Your task to perform on an android device: install app "Firefox Browser" Image 0: 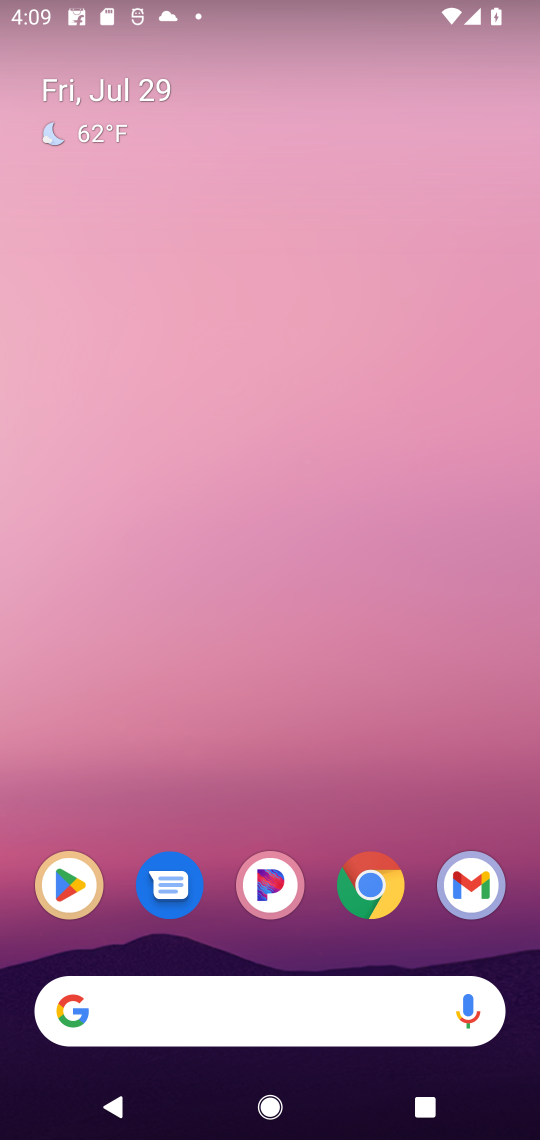
Step 0: click (85, 882)
Your task to perform on an android device: install app "Firefox Browser" Image 1: 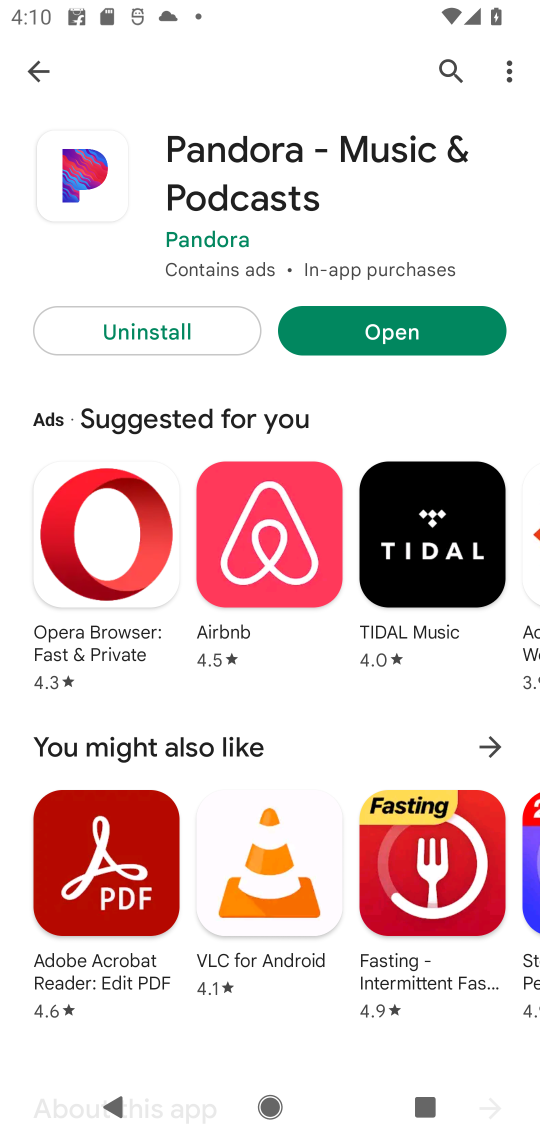
Step 1: click (449, 61)
Your task to perform on an android device: install app "Firefox Browser" Image 2: 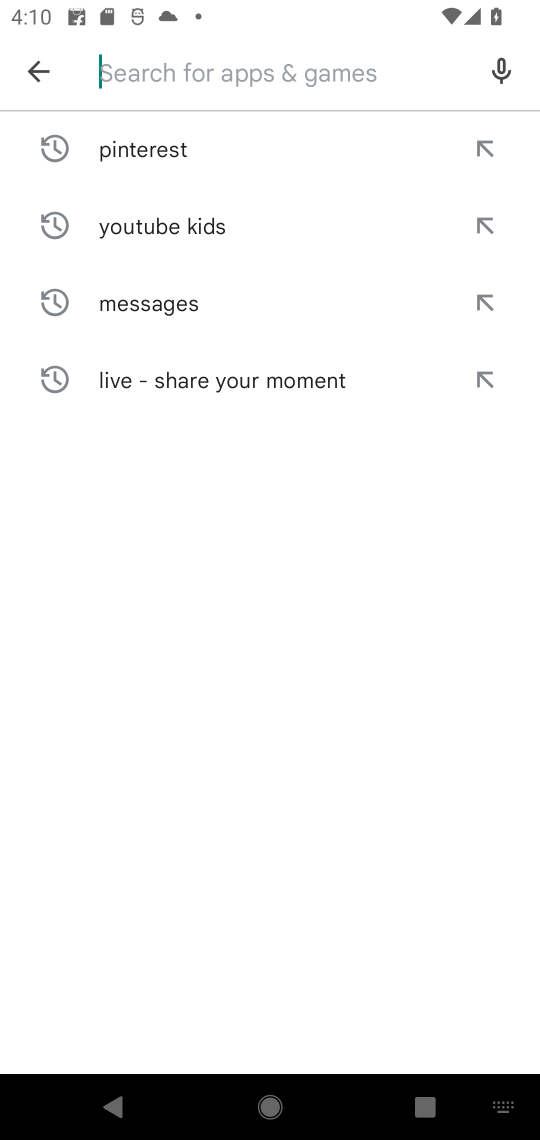
Step 2: type "Firefox Browser"
Your task to perform on an android device: install app "Firefox Browser" Image 3: 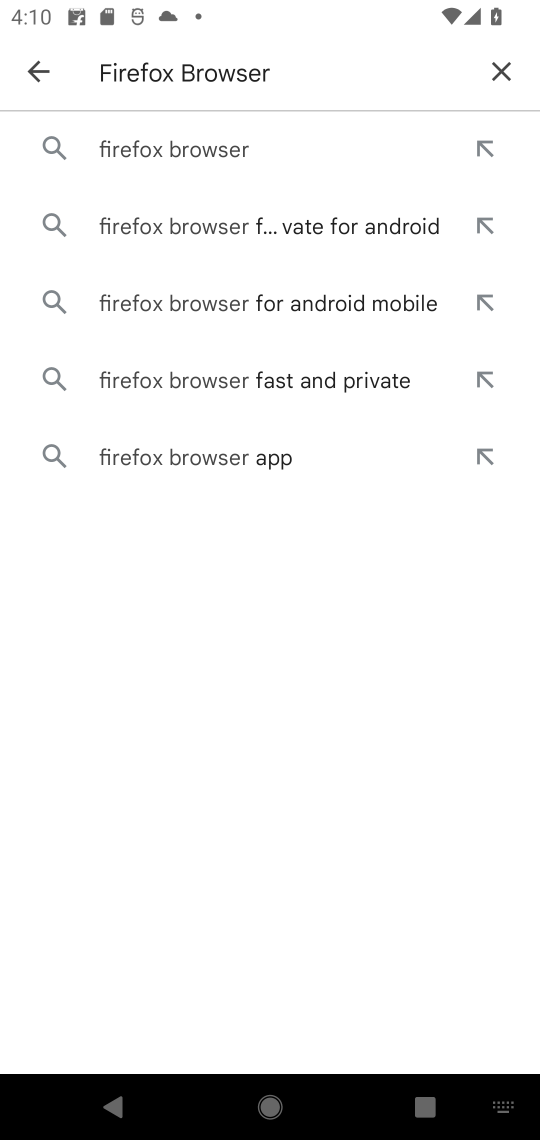
Step 3: click (198, 150)
Your task to perform on an android device: install app "Firefox Browser" Image 4: 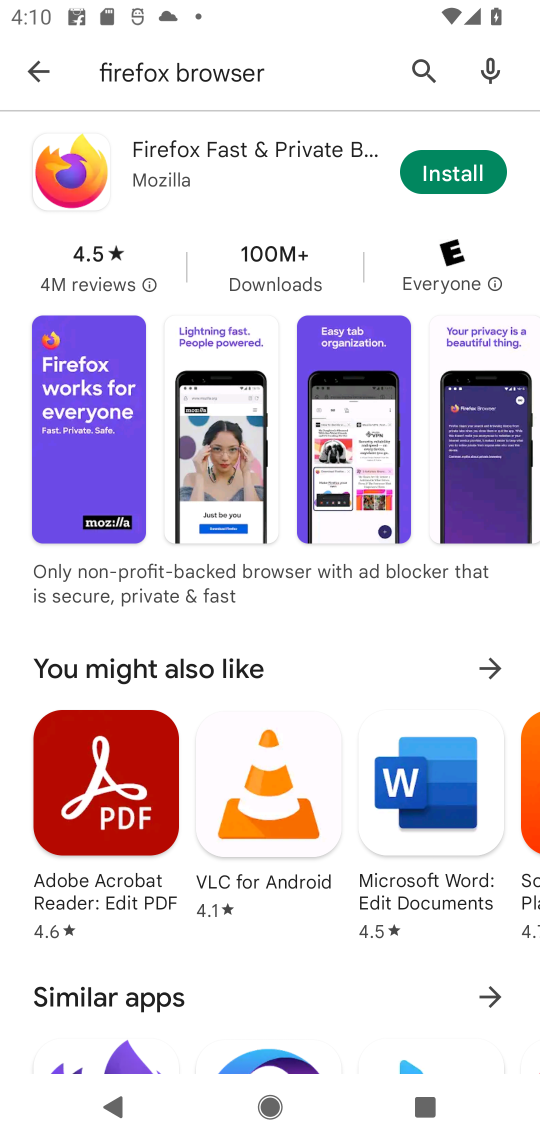
Step 4: drag from (308, 626) to (228, 224)
Your task to perform on an android device: install app "Firefox Browser" Image 5: 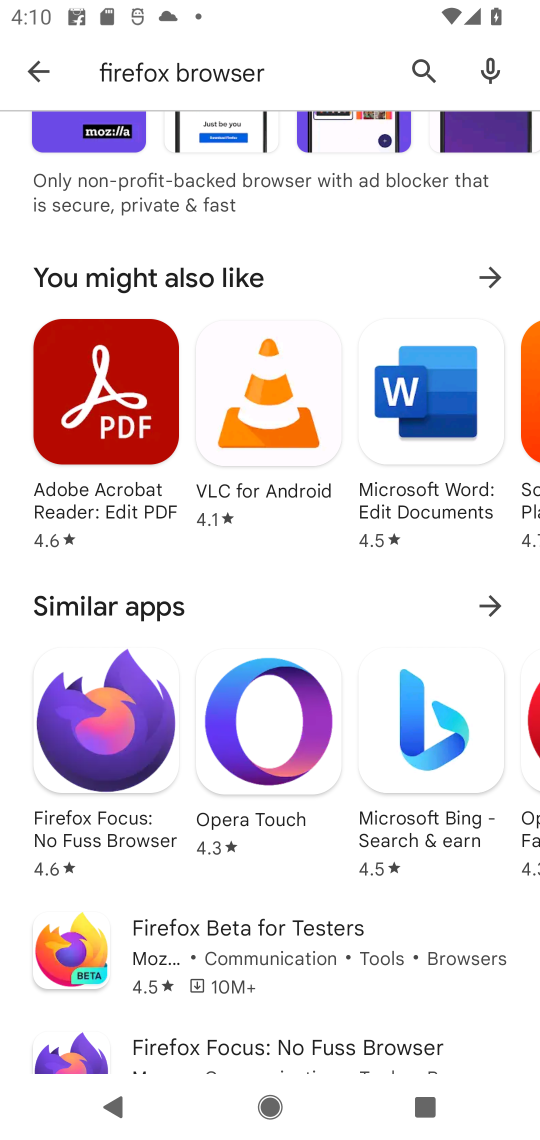
Step 5: drag from (236, 998) to (358, 956)
Your task to perform on an android device: install app "Firefox Browser" Image 6: 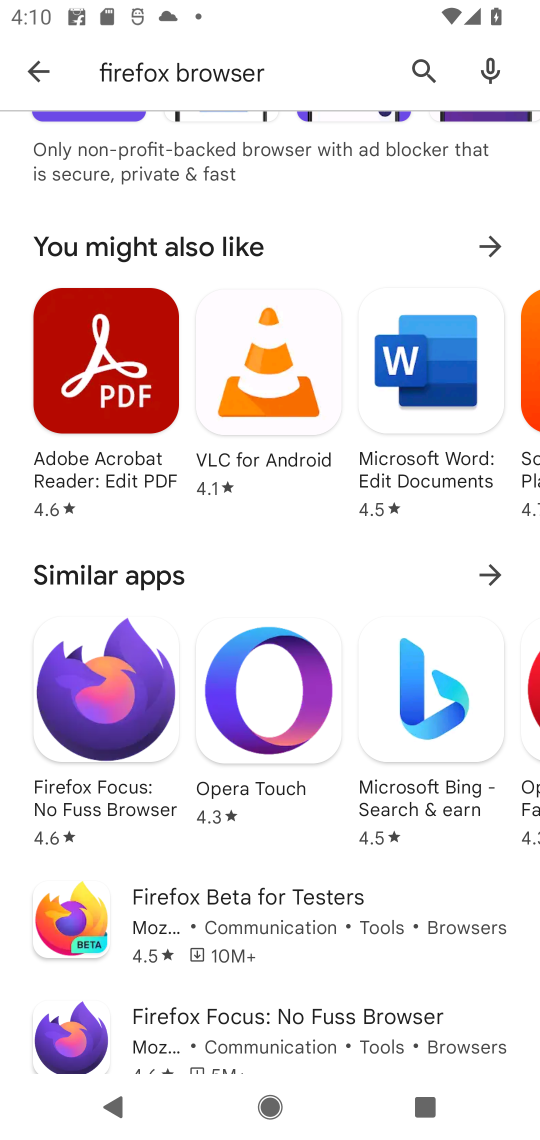
Step 6: drag from (235, 157) to (315, 872)
Your task to perform on an android device: install app "Firefox Browser" Image 7: 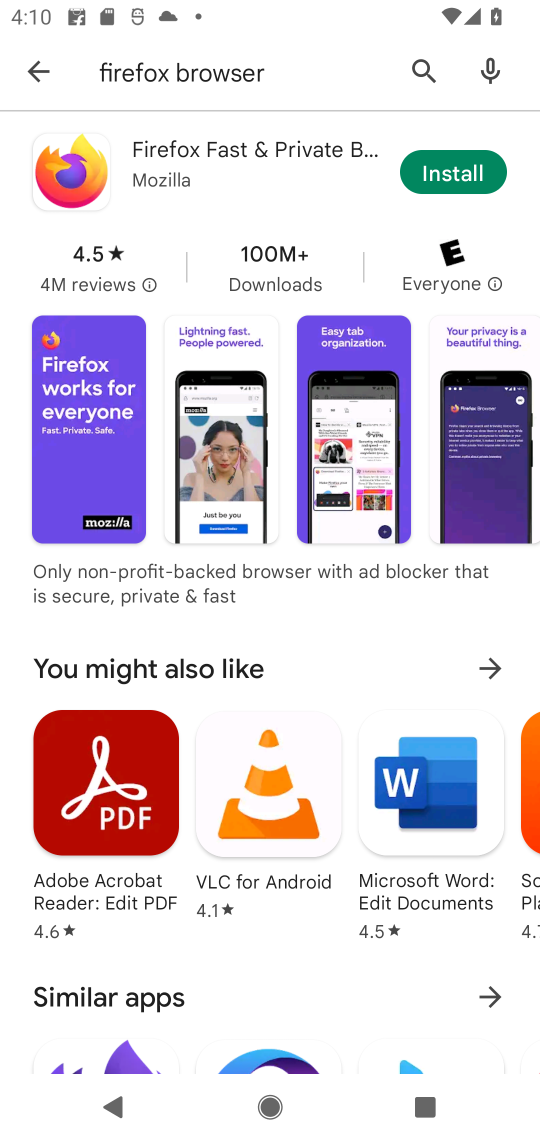
Step 7: click (239, 147)
Your task to perform on an android device: install app "Firefox Browser" Image 8: 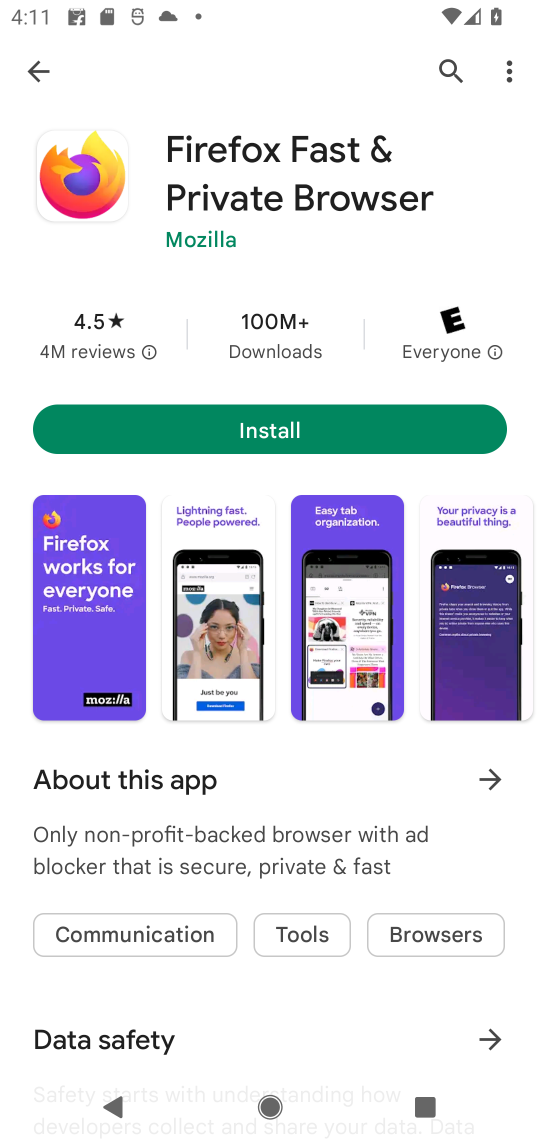
Step 8: task complete